Your task to perform on an android device: change the clock style Image 0: 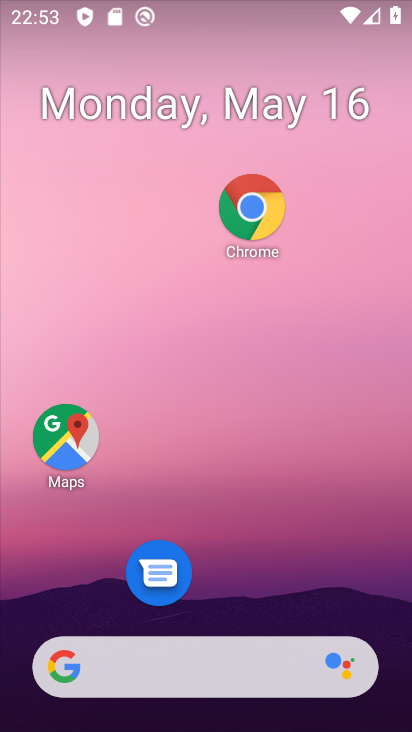
Step 0: drag from (274, 320) to (291, 192)
Your task to perform on an android device: change the clock style Image 1: 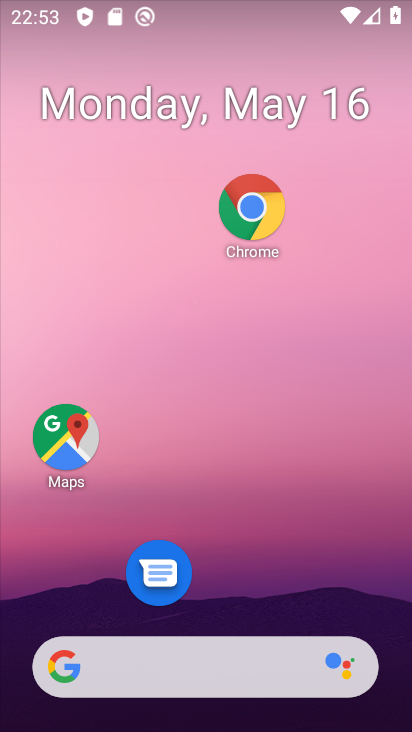
Step 1: drag from (206, 573) to (241, 52)
Your task to perform on an android device: change the clock style Image 2: 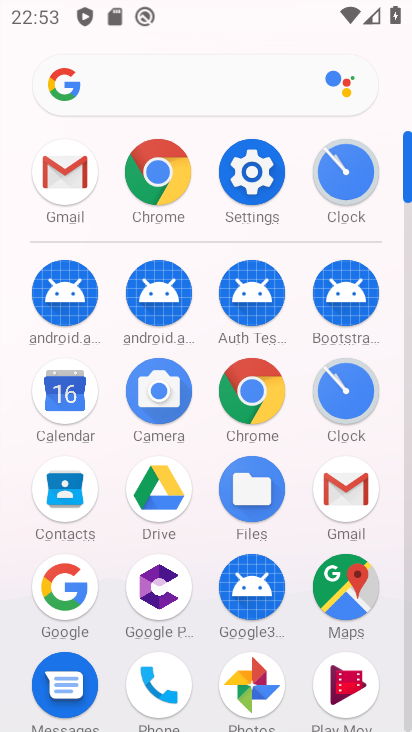
Step 2: click (352, 391)
Your task to perform on an android device: change the clock style Image 3: 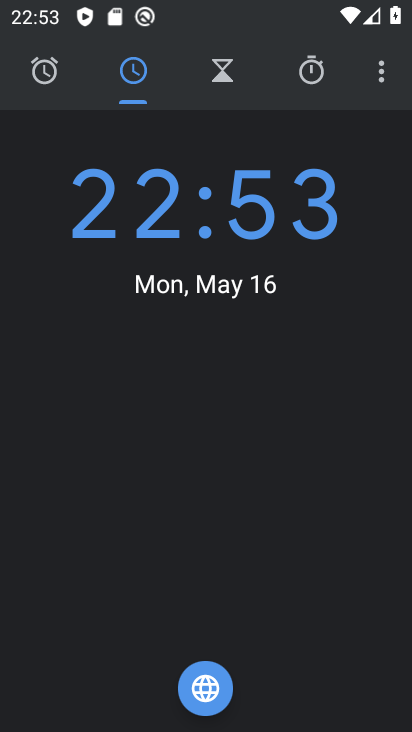
Step 3: click (382, 84)
Your task to perform on an android device: change the clock style Image 4: 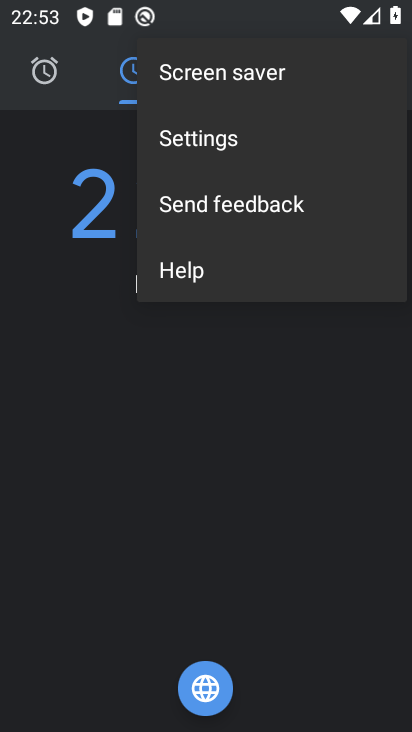
Step 4: click (258, 145)
Your task to perform on an android device: change the clock style Image 5: 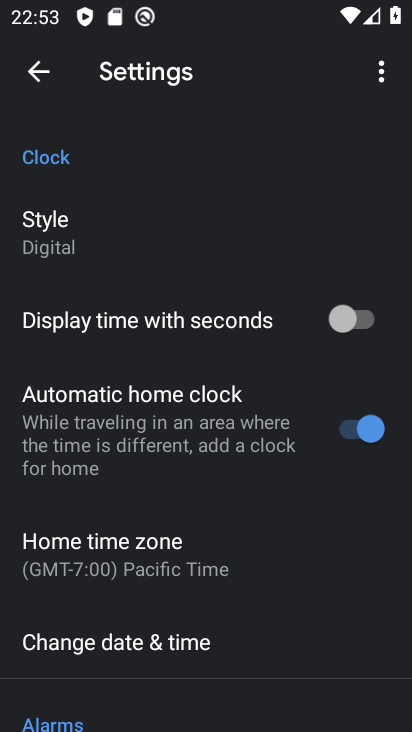
Step 5: click (67, 236)
Your task to perform on an android device: change the clock style Image 6: 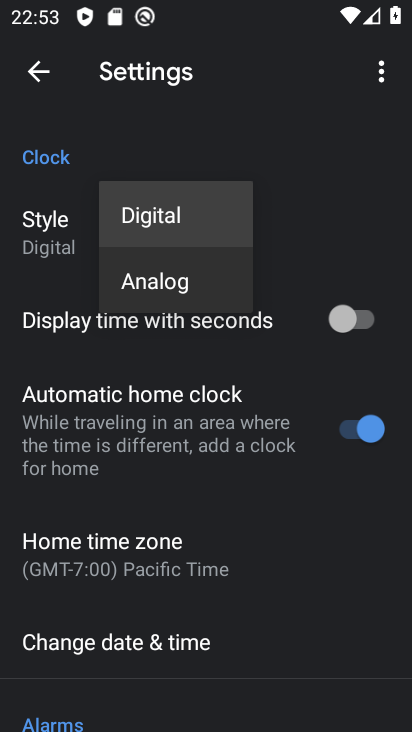
Step 6: click (162, 296)
Your task to perform on an android device: change the clock style Image 7: 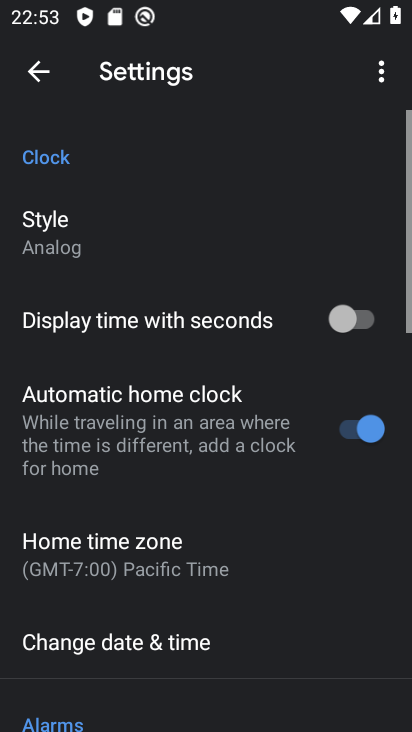
Step 7: task complete